Your task to perform on an android device: Go to Reddit.com Image 0: 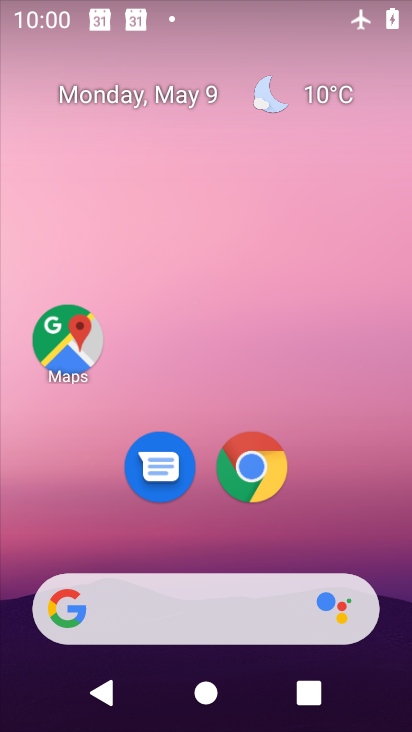
Step 0: click (251, 466)
Your task to perform on an android device: Go to Reddit.com Image 1: 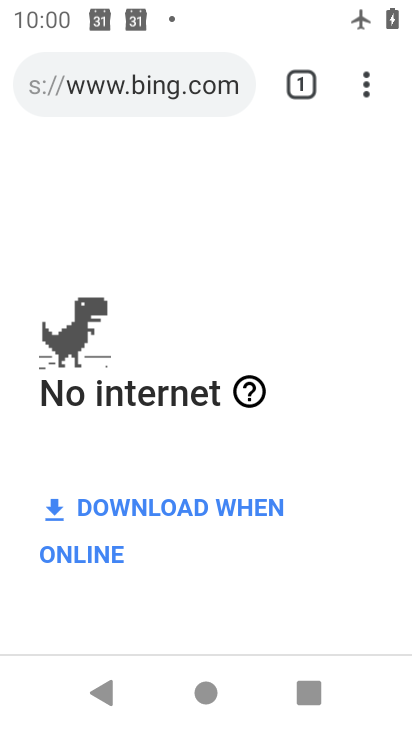
Step 1: click (104, 81)
Your task to perform on an android device: Go to Reddit.com Image 2: 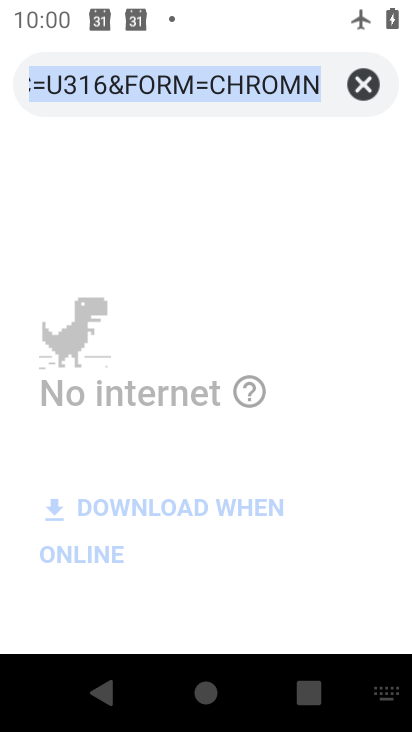
Step 2: click (367, 90)
Your task to perform on an android device: Go to Reddit.com Image 3: 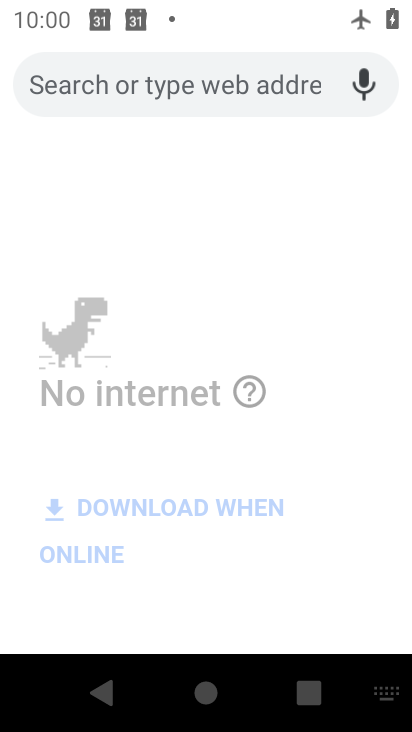
Step 3: click (175, 69)
Your task to perform on an android device: Go to Reddit.com Image 4: 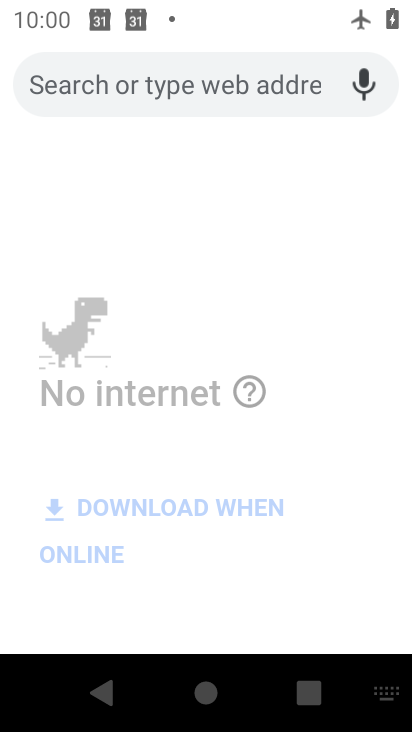
Step 4: type "reddit.com"
Your task to perform on an android device: Go to Reddit.com Image 5: 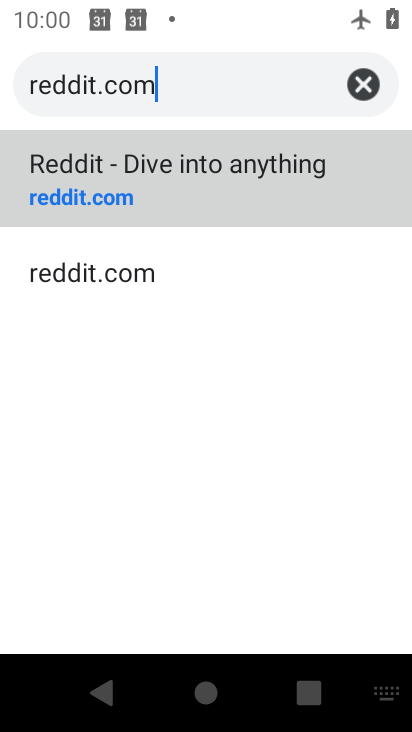
Step 5: click (90, 268)
Your task to perform on an android device: Go to Reddit.com Image 6: 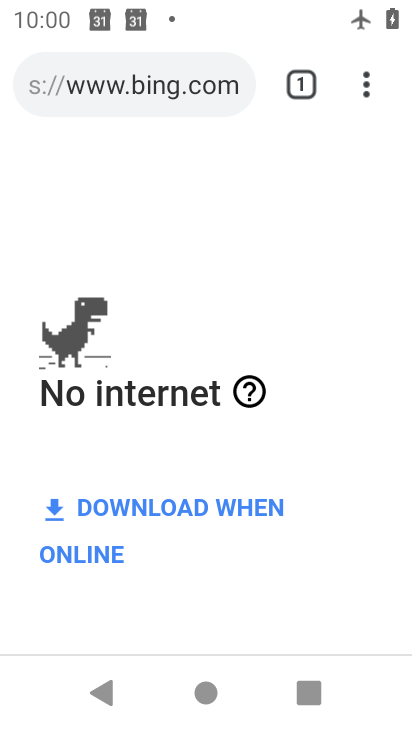
Step 6: task complete